Your task to perform on an android device: turn on translation in the chrome app Image 0: 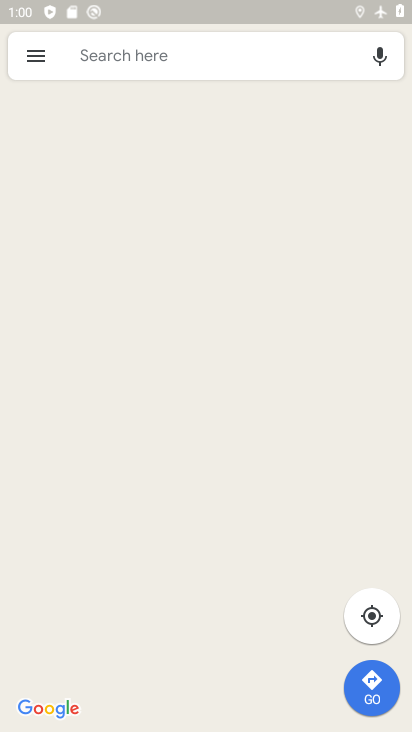
Step 0: press home button
Your task to perform on an android device: turn on translation in the chrome app Image 1: 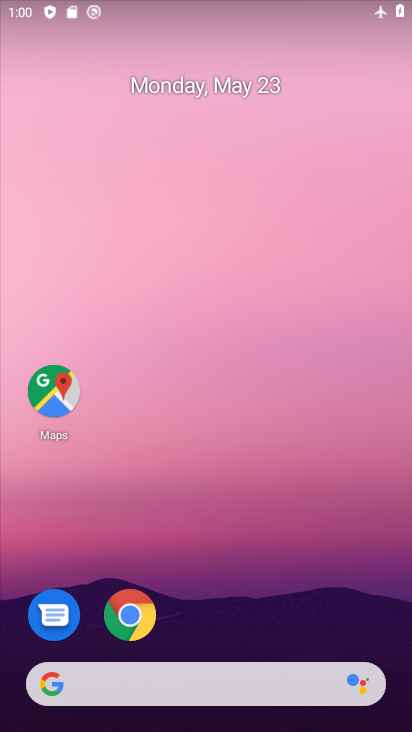
Step 1: click (136, 616)
Your task to perform on an android device: turn on translation in the chrome app Image 2: 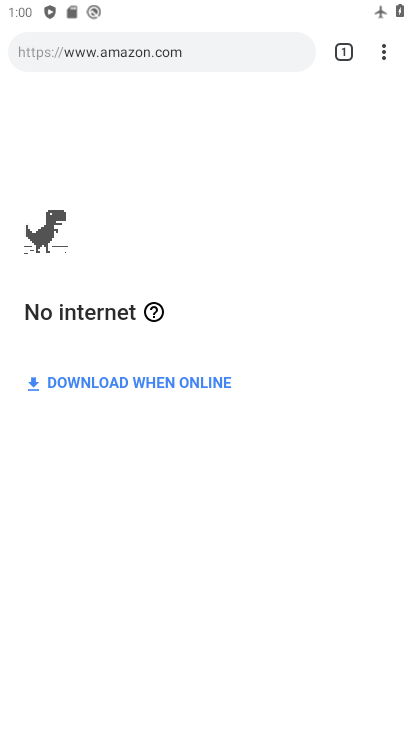
Step 2: click (383, 50)
Your task to perform on an android device: turn on translation in the chrome app Image 3: 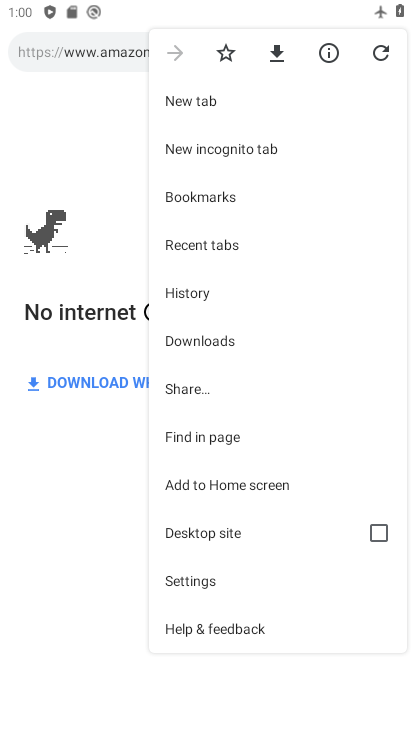
Step 3: click (196, 585)
Your task to perform on an android device: turn on translation in the chrome app Image 4: 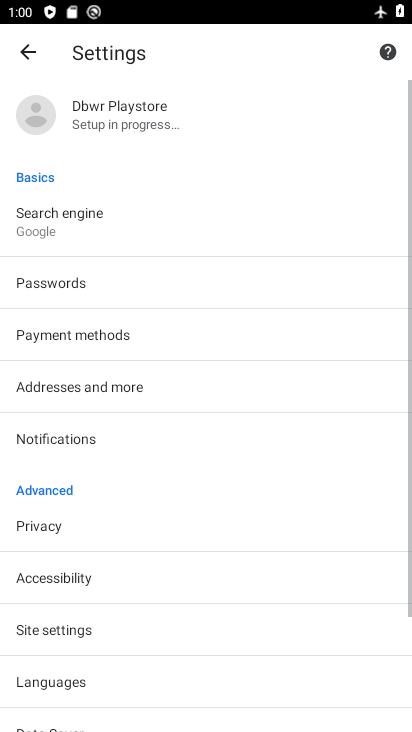
Step 4: drag from (196, 585) to (172, 176)
Your task to perform on an android device: turn on translation in the chrome app Image 5: 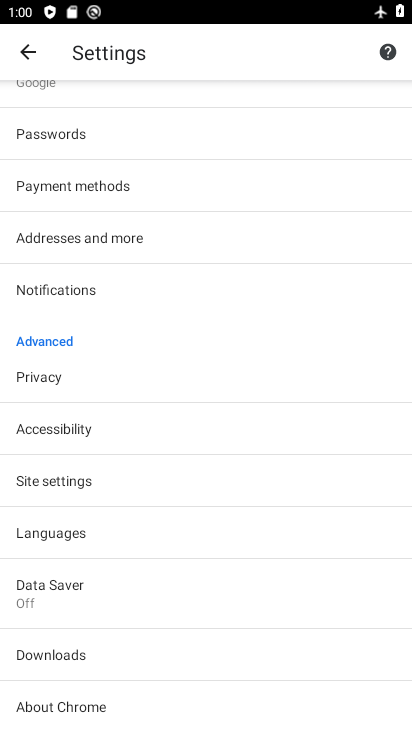
Step 5: click (60, 535)
Your task to perform on an android device: turn on translation in the chrome app Image 6: 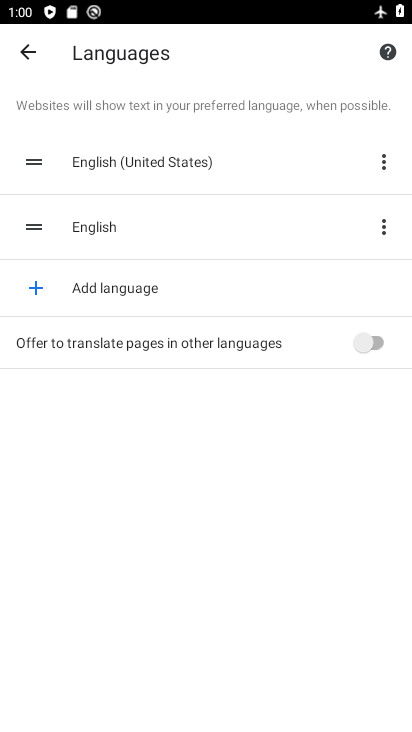
Step 6: click (375, 337)
Your task to perform on an android device: turn on translation in the chrome app Image 7: 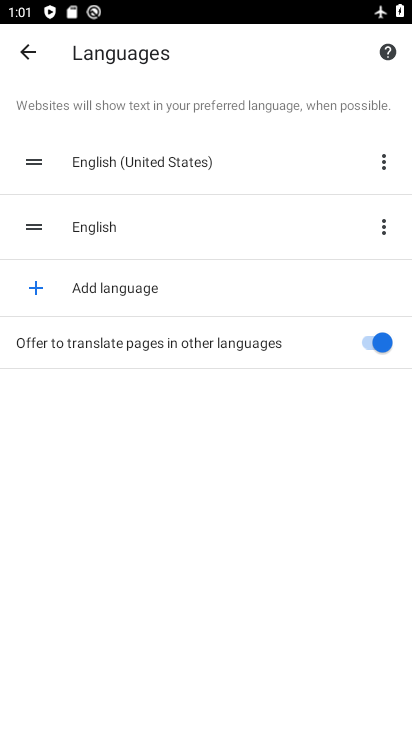
Step 7: task complete